Your task to perform on an android device: When is my next appointment? Image 0: 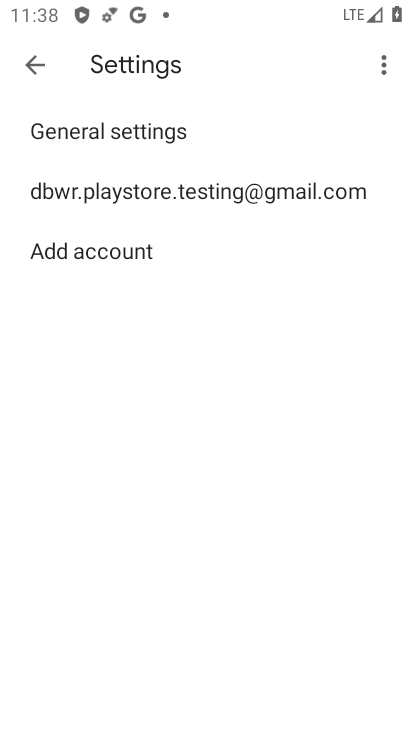
Step 0: press home button
Your task to perform on an android device: When is my next appointment? Image 1: 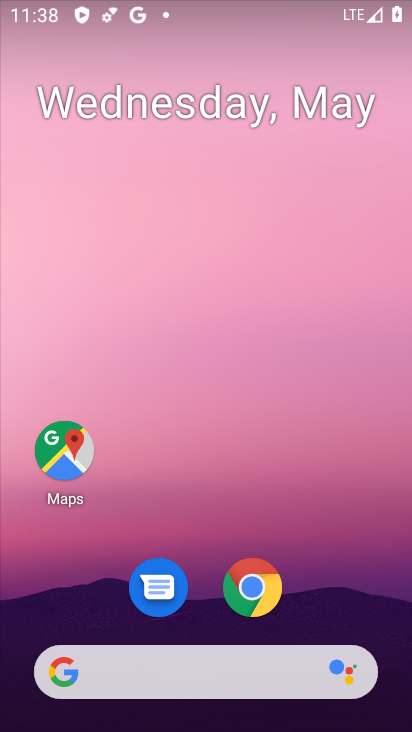
Step 1: drag from (217, 489) to (226, 61)
Your task to perform on an android device: When is my next appointment? Image 2: 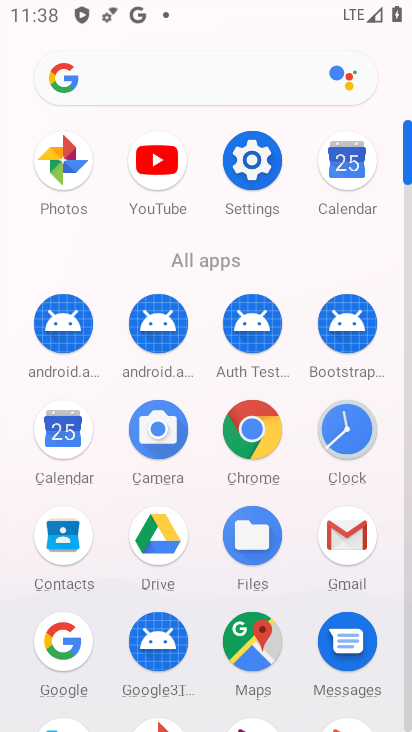
Step 2: click (356, 537)
Your task to perform on an android device: When is my next appointment? Image 3: 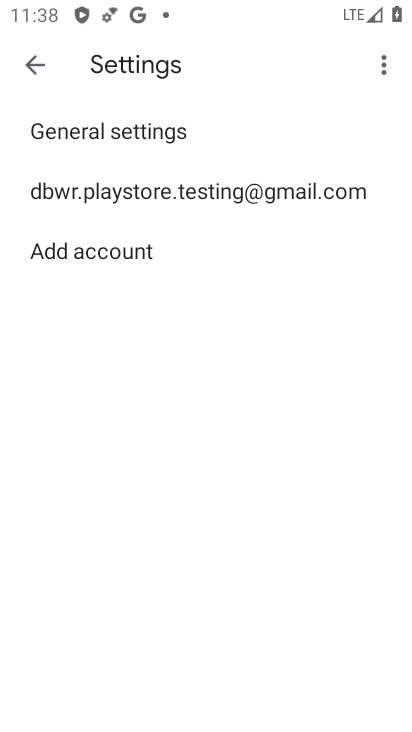
Step 3: press home button
Your task to perform on an android device: When is my next appointment? Image 4: 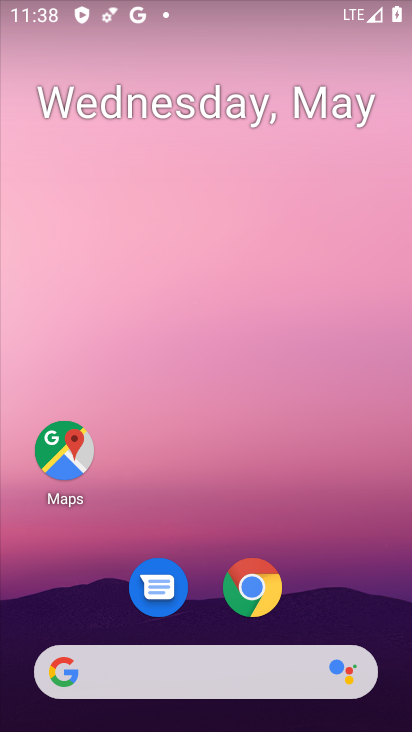
Step 4: drag from (215, 480) to (148, 38)
Your task to perform on an android device: When is my next appointment? Image 5: 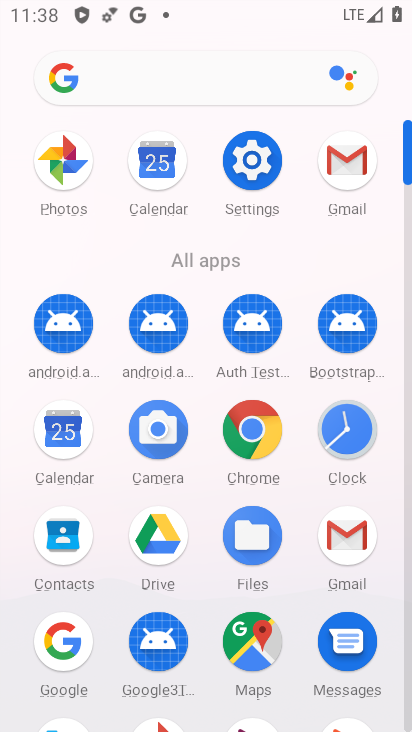
Step 5: click (71, 429)
Your task to perform on an android device: When is my next appointment? Image 6: 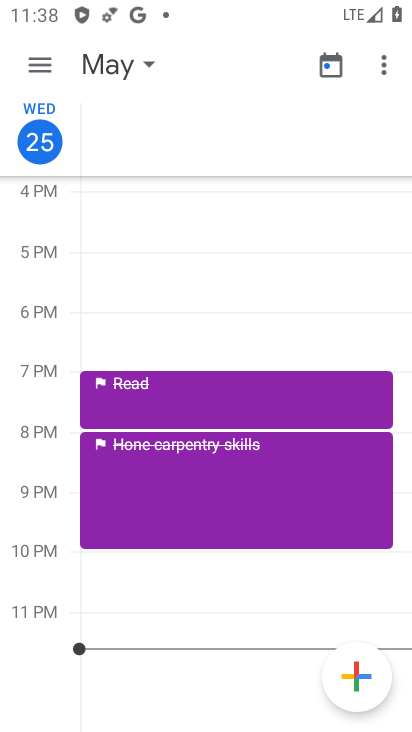
Step 6: click (47, 59)
Your task to perform on an android device: When is my next appointment? Image 7: 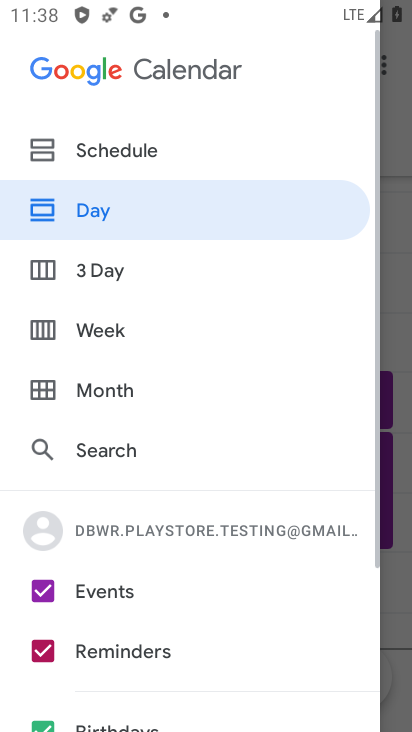
Step 7: click (133, 152)
Your task to perform on an android device: When is my next appointment? Image 8: 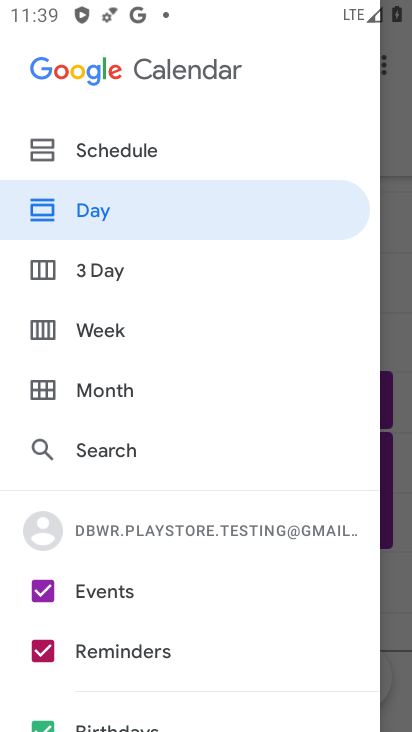
Step 8: drag from (194, 604) to (140, 623)
Your task to perform on an android device: When is my next appointment? Image 9: 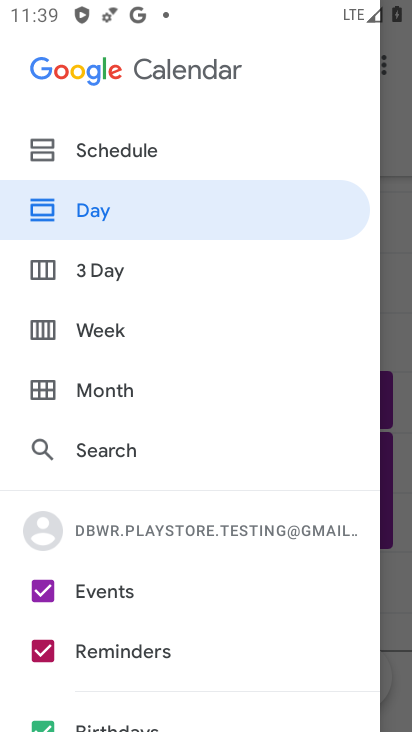
Step 9: click (123, 149)
Your task to perform on an android device: When is my next appointment? Image 10: 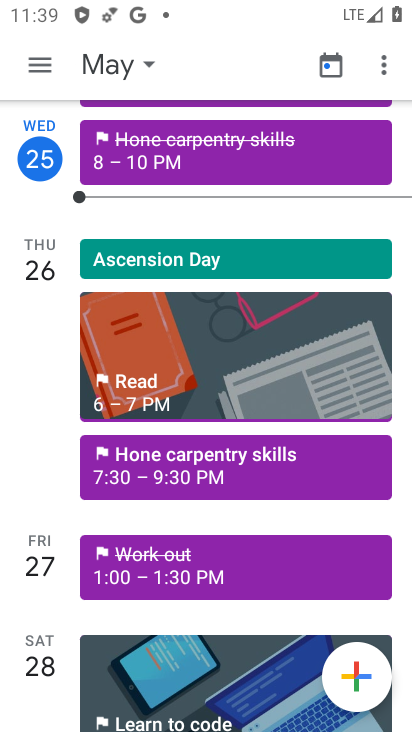
Step 10: task complete